Your task to perform on an android device: add a label to a message in the gmail app Image 0: 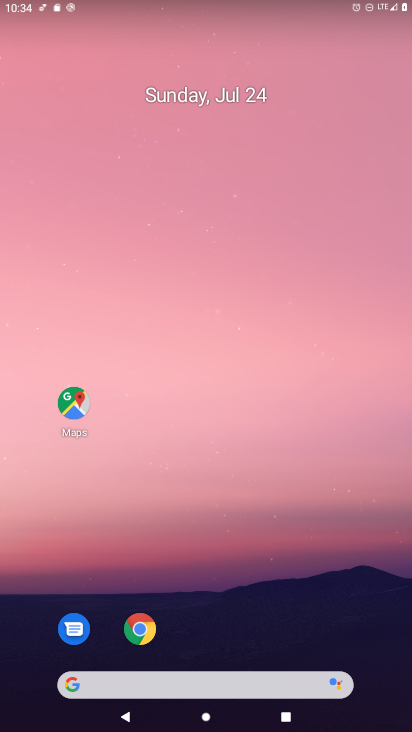
Step 0: drag from (366, 630) to (141, 66)
Your task to perform on an android device: add a label to a message in the gmail app Image 1: 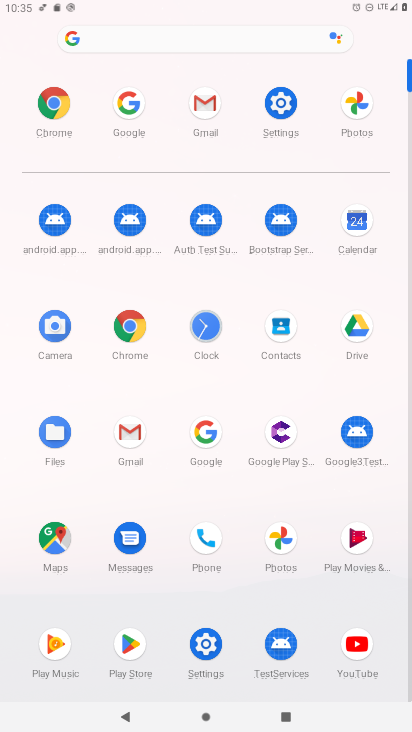
Step 1: click (132, 433)
Your task to perform on an android device: add a label to a message in the gmail app Image 2: 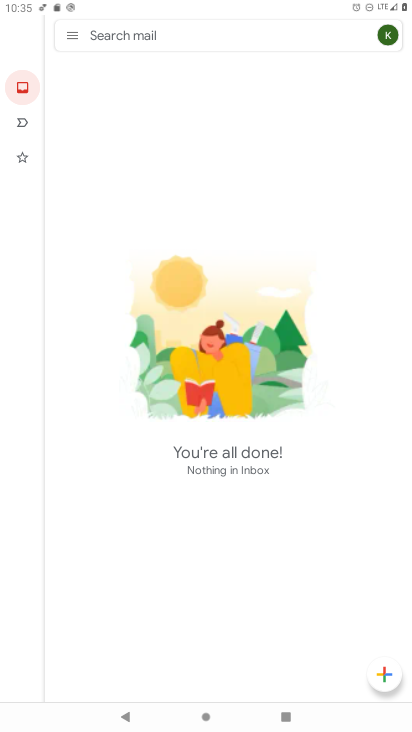
Step 2: task complete